Your task to perform on an android device: see creations saved in the google photos Image 0: 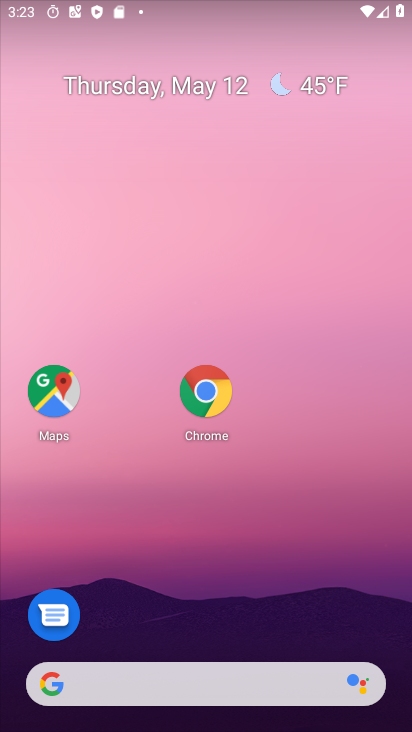
Step 0: drag from (206, 600) to (231, 105)
Your task to perform on an android device: see creations saved in the google photos Image 1: 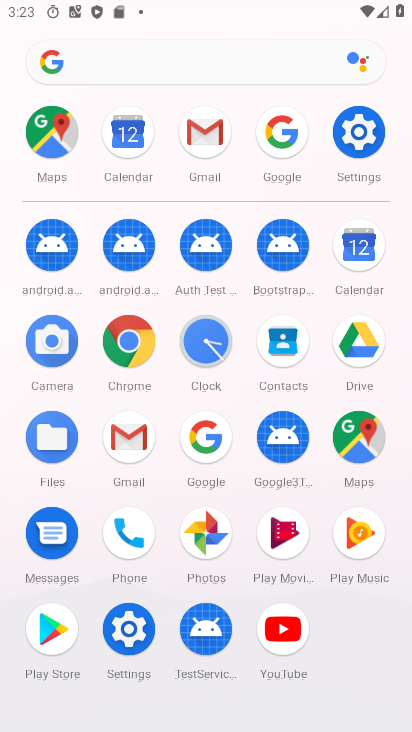
Step 1: click (205, 534)
Your task to perform on an android device: see creations saved in the google photos Image 2: 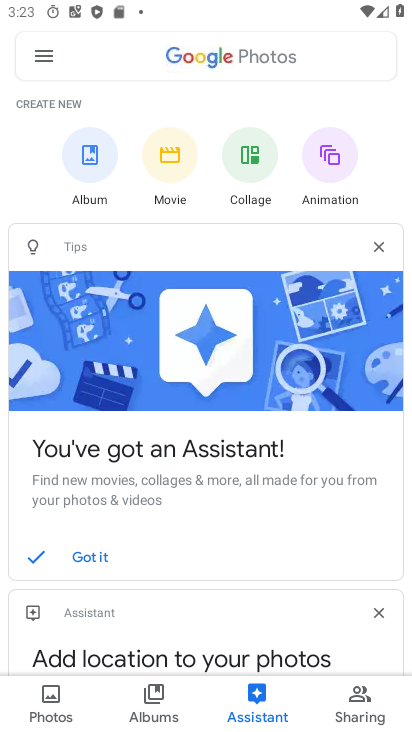
Step 2: drag from (264, 602) to (266, 144)
Your task to perform on an android device: see creations saved in the google photos Image 3: 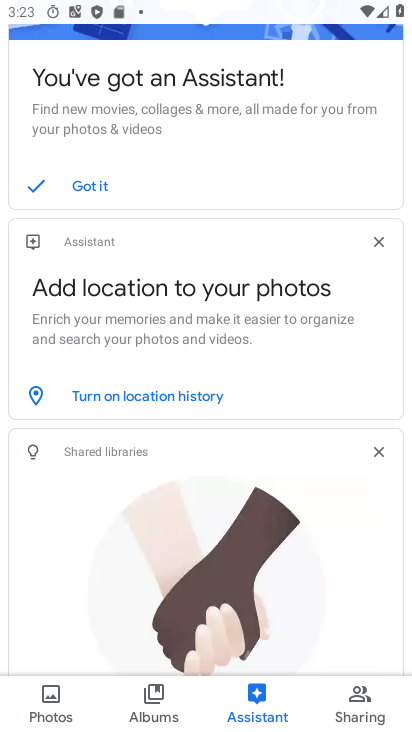
Step 3: drag from (188, 551) to (206, 723)
Your task to perform on an android device: see creations saved in the google photos Image 4: 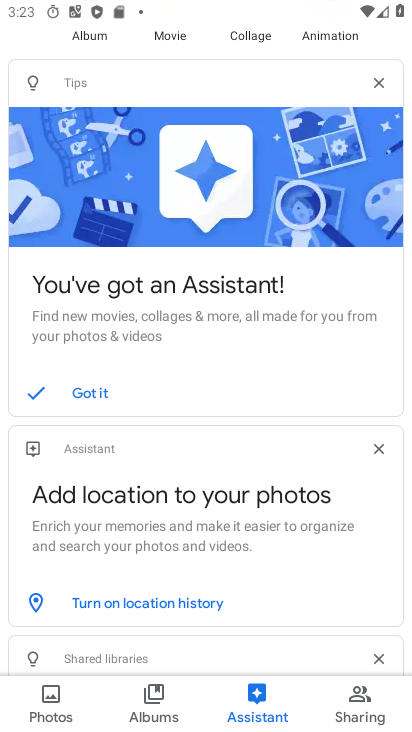
Step 4: drag from (179, 347) to (220, 169)
Your task to perform on an android device: see creations saved in the google photos Image 5: 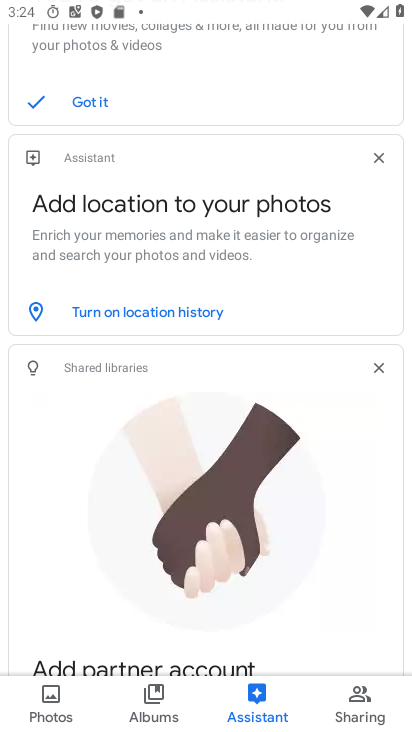
Step 5: drag from (250, 615) to (243, 165)
Your task to perform on an android device: see creations saved in the google photos Image 6: 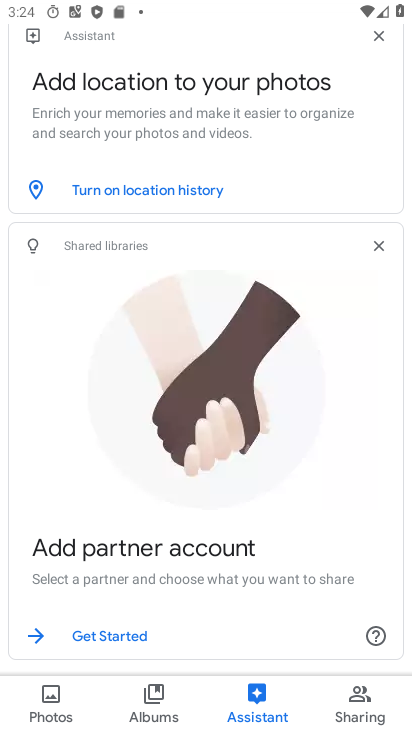
Step 6: click (357, 711)
Your task to perform on an android device: see creations saved in the google photos Image 7: 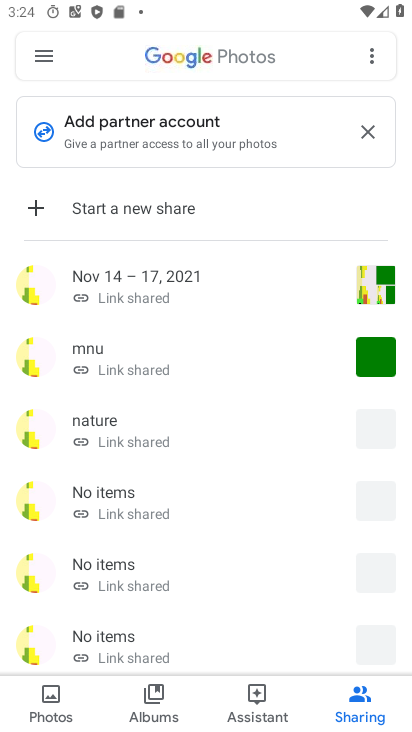
Step 7: click (239, 706)
Your task to perform on an android device: see creations saved in the google photos Image 8: 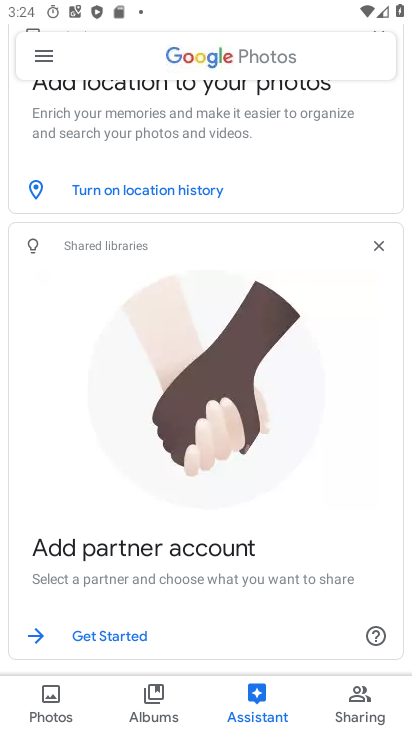
Step 8: drag from (156, 247) to (275, 664)
Your task to perform on an android device: see creations saved in the google photos Image 9: 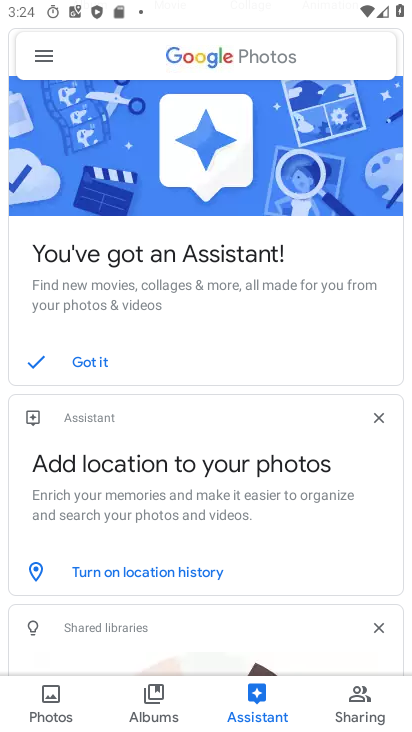
Step 9: drag from (163, 264) to (245, 594)
Your task to perform on an android device: see creations saved in the google photos Image 10: 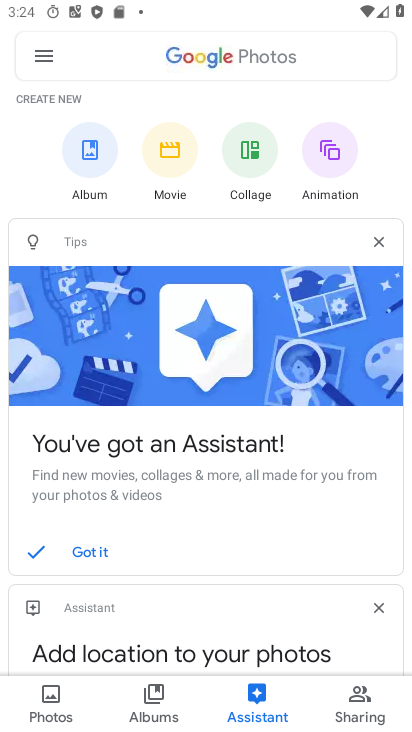
Step 10: click (150, 711)
Your task to perform on an android device: see creations saved in the google photos Image 11: 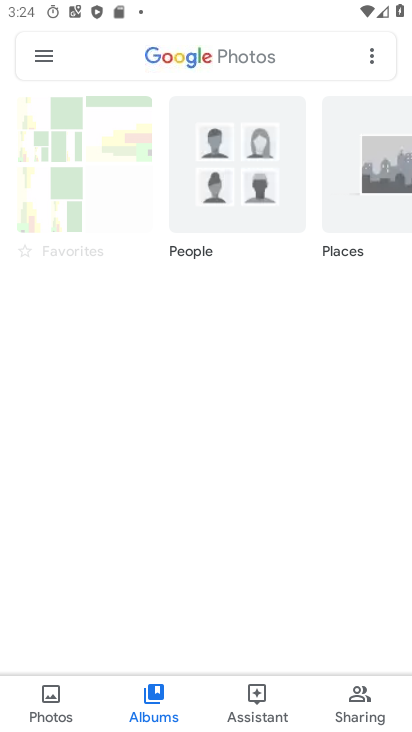
Step 11: drag from (187, 566) to (220, 729)
Your task to perform on an android device: see creations saved in the google photos Image 12: 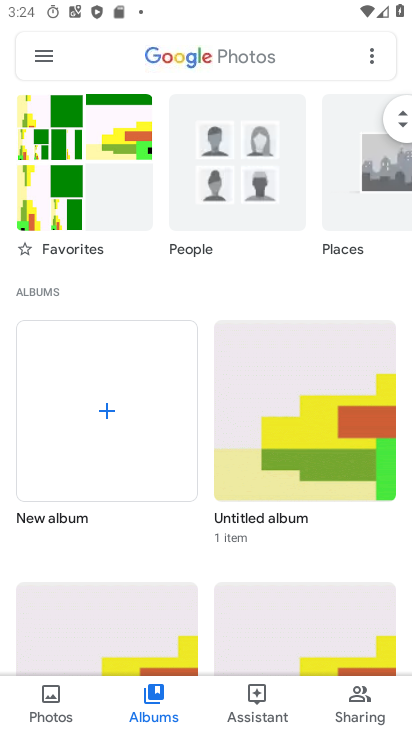
Step 12: drag from (307, 204) to (386, 231)
Your task to perform on an android device: see creations saved in the google photos Image 13: 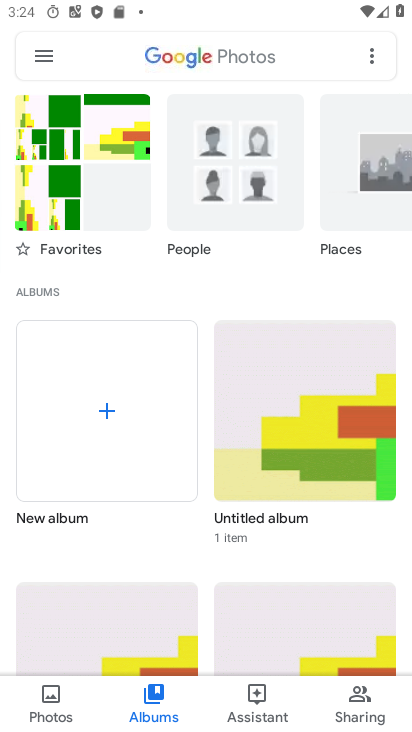
Step 13: click (171, 53)
Your task to perform on an android device: see creations saved in the google photos Image 14: 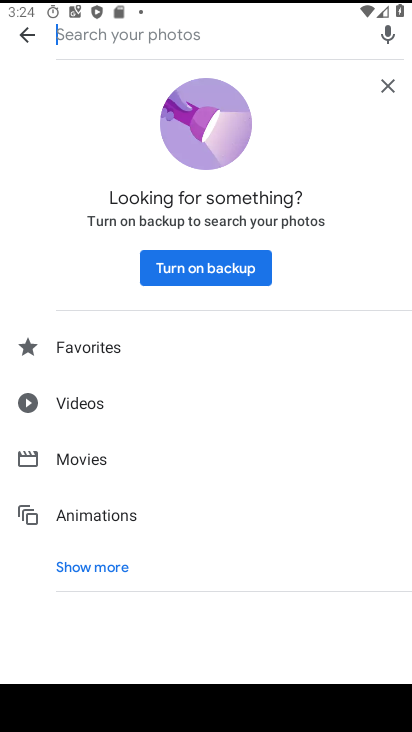
Step 14: click (87, 571)
Your task to perform on an android device: see creations saved in the google photos Image 15: 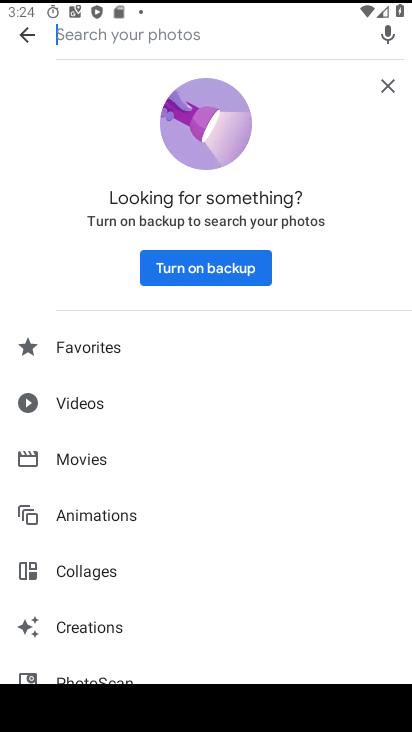
Step 15: click (94, 624)
Your task to perform on an android device: see creations saved in the google photos Image 16: 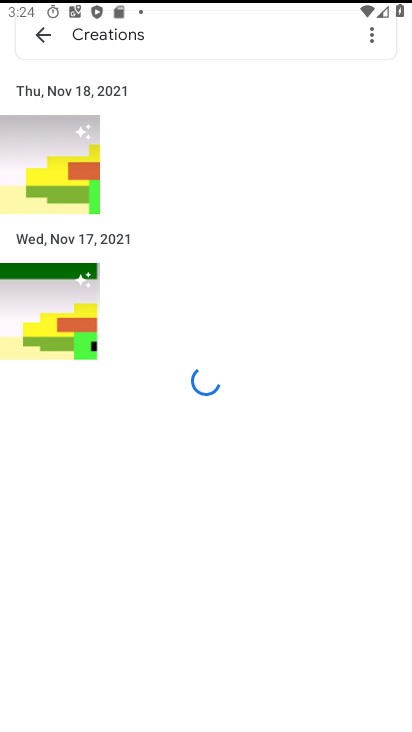
Step 16: task complete